Your task to perform on an android device: change keyboard looks Image 0: 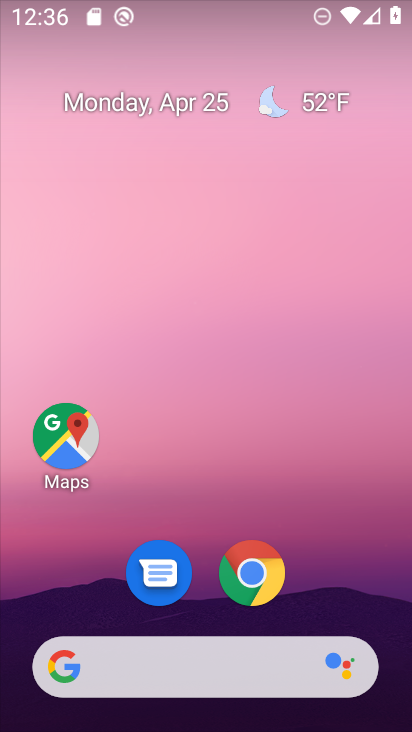
Step 0: drag from (248, 727) to (258, 95)
Your task to perform on an android device: change keyboard looks Image 1: 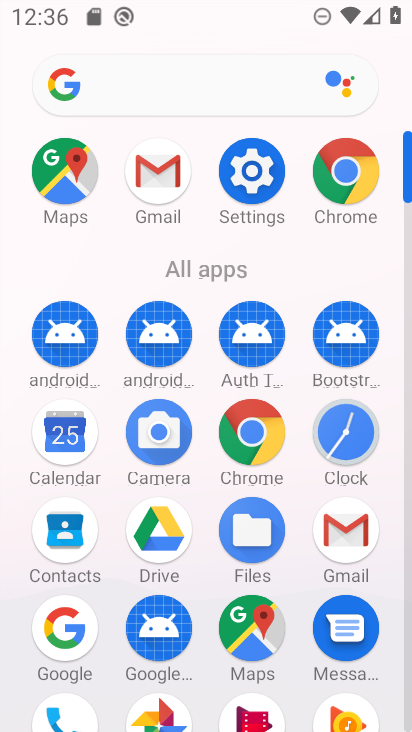
Step 1: click (254, 172)
Your task to perform on an android device: change keyboard looks Image 2: 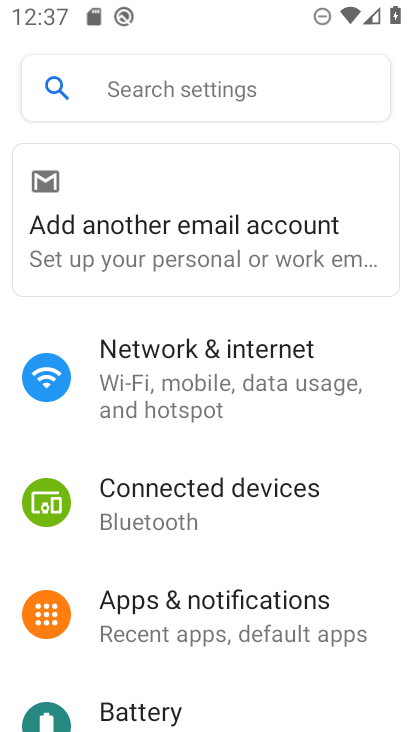
Step 2: drag from (193, 700) to (241, 310)
Your task to perform on an android device: change keyboard looks Image 3: 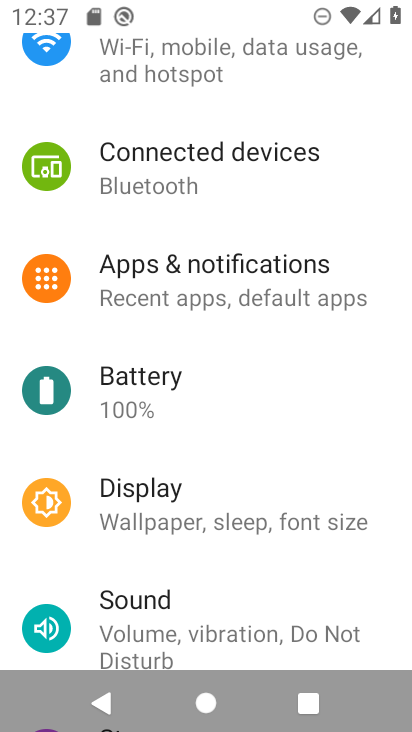
Step 3: drag from (261, 618) to (275, 385)
Your task to perform on an android device: change keyboard looks Image 4: 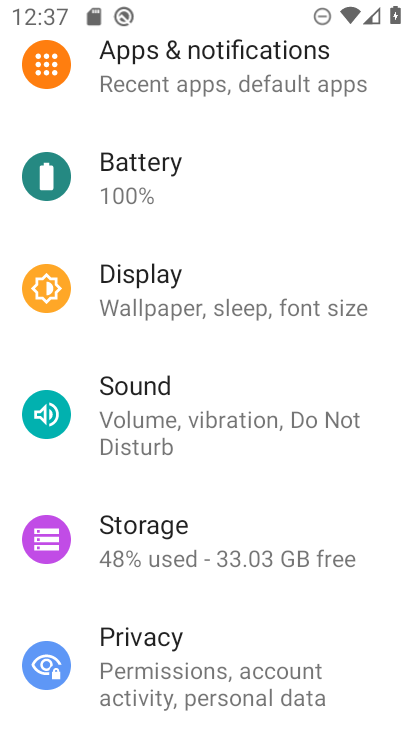
Step 4: drag from (250, 666) to (260, 313)
Your task to perform on an android device: change keyboard looks Image 5: 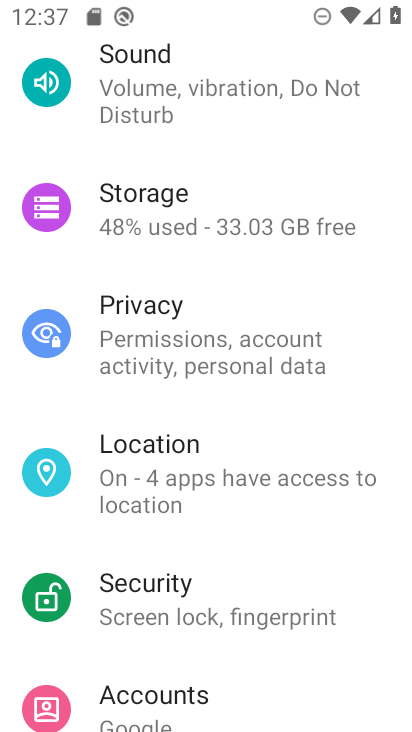
Step 5: drag from (238, 700) to (234, 305)
Your task to perform on an android device: change keyboard looks Image 6: 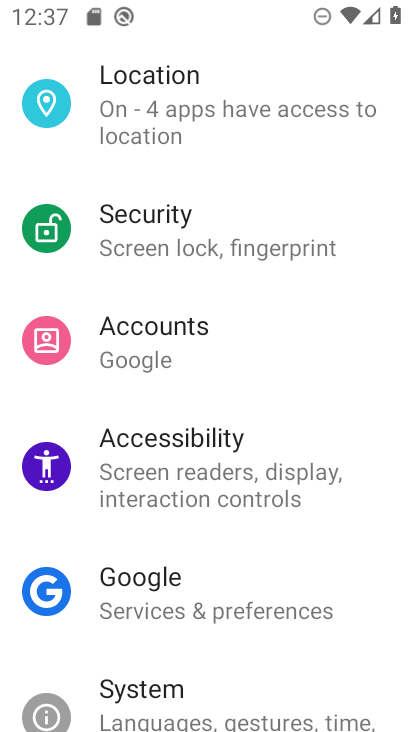
Step 6: drag from (234, 661) to (237, 281)
Your task to perform on an android device: change keyboard looks Image 7: 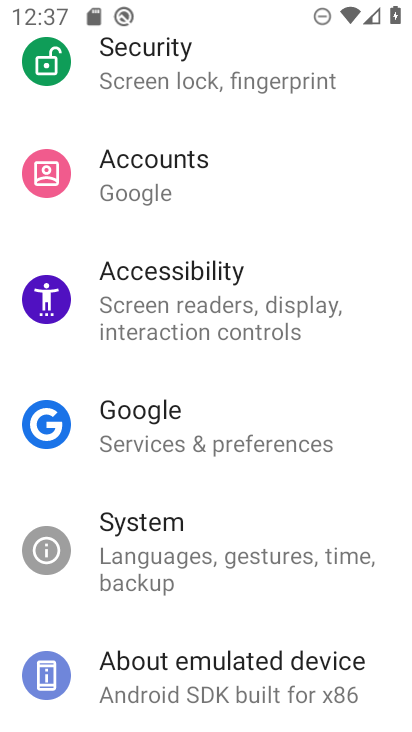
Step 7: click (149, 545)
Your task to perform on an android device: change keyboard looks Image 8: 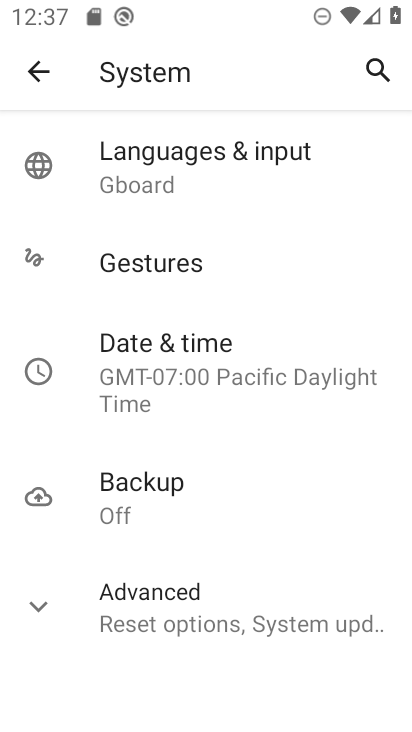
Step 8: click (169, 143)
Your task to perform on an android device: change keyboard looks Image 9: 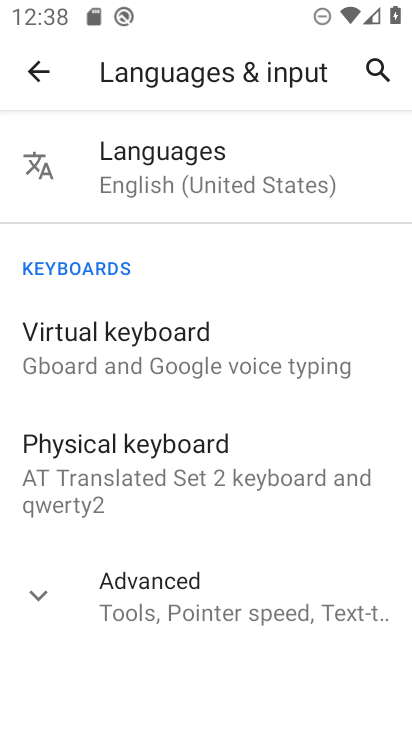
Step 9: click (151, 353)
Your task to perform on an android device: change keyboard looks Image 10: 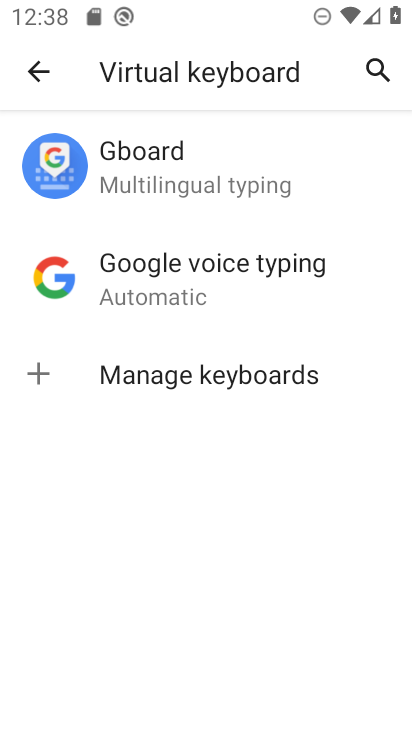
Step 10: click (156, 179)
Your task to perform on an android device: change keyboard looks Image 11: 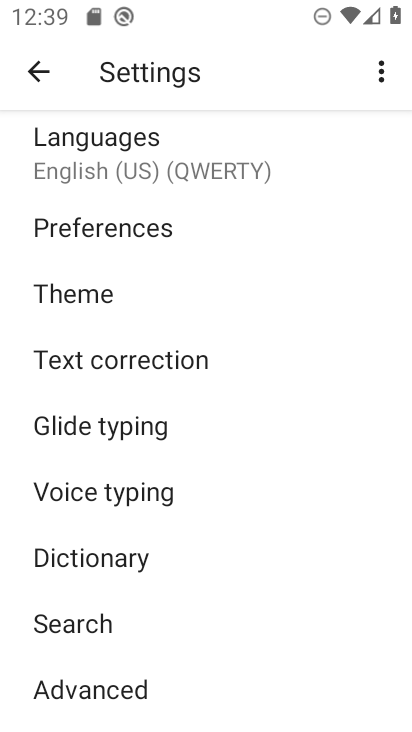
Step 11: drag from (142, 656) to (115, 363)
Your task to perform on an android device: change keyboard looks Image 12: 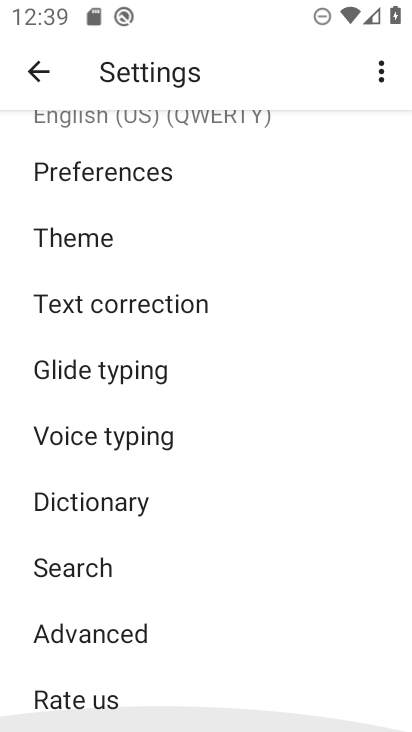
Step 12: click (93, 230)
Your task to perform on an android device: change keyboard looks Image 13: 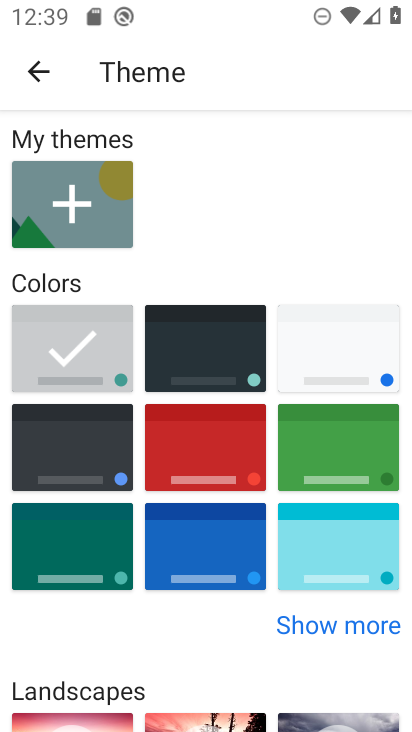
Step 13: click (203, 362)
Your task to perform on an android device: change keyboard looks Image 14: 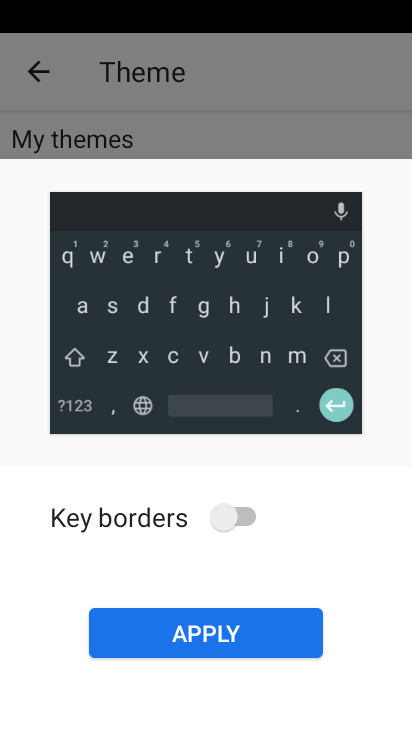
Step 14: click (244, 509)
Your task to perform on an android device: change keyboard looks Image 15: 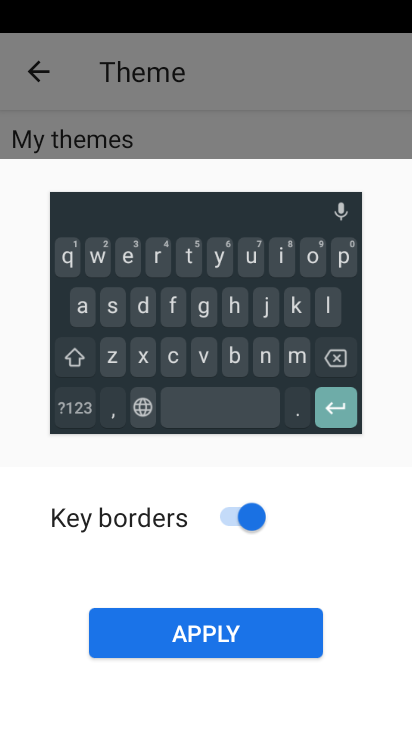
Step 15: click (240, 631)
Your task to perform on an android device: change keyboard looks Image 16: 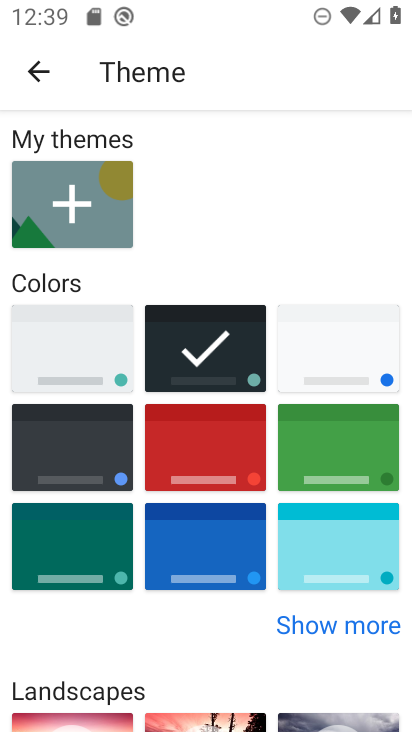
Step 16: task complete